Your task to perform on an android device: turn vacation reply on in the gmail app Image 0: 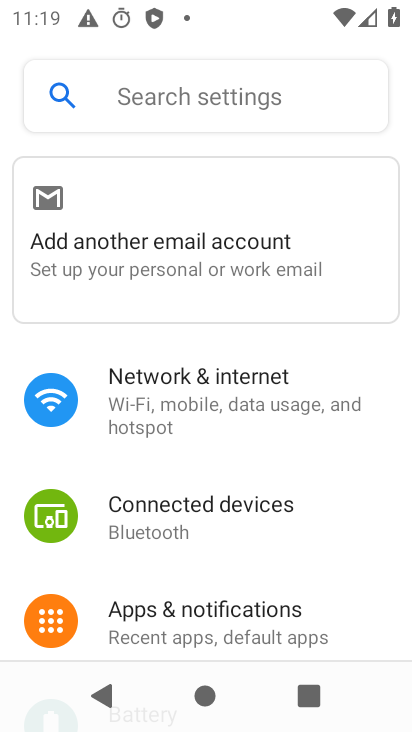
Step 0: press home button
Your task to perform on an android device: turn vacation reply on in the gmail app Image 1: 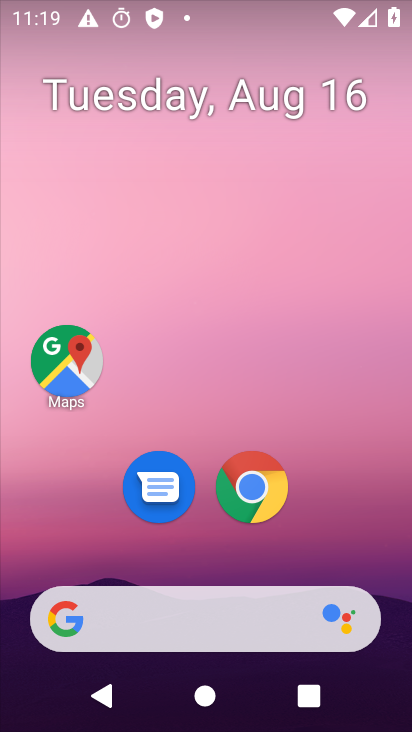
Step 1: drag from (381, 557) to (315, 104)
Your task to perform on an android device: turn vacation reply on in the gmail app Image 2: 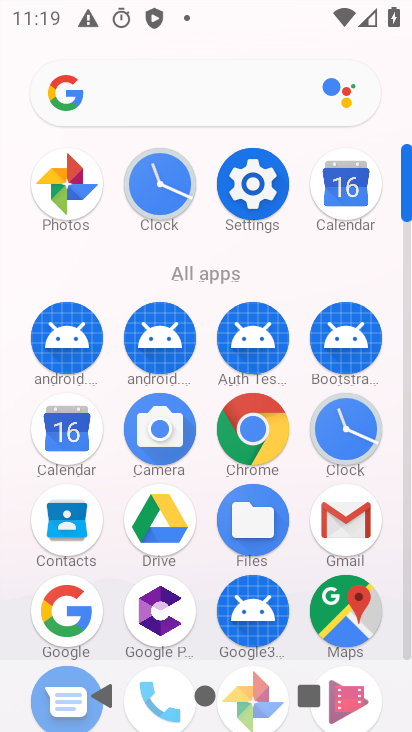
Step 2: click (328, 532)
Your task to perform on an android device: turn vacation reply on in the gmail app Image 3: 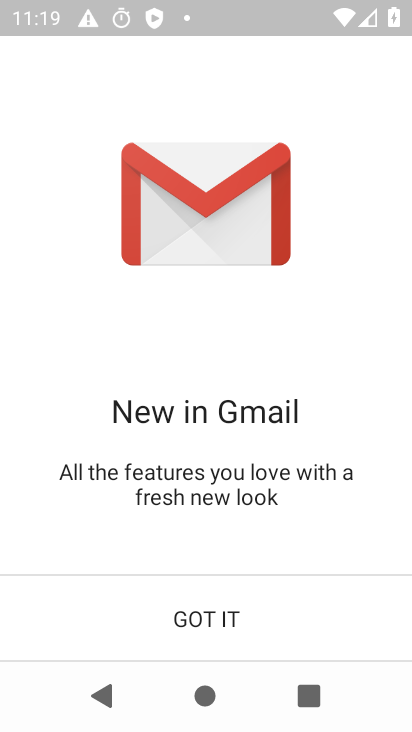
Step 3: click (180, 603)
Your task to perform on an android device: turn vacation reply on in the gmail app Image 4: 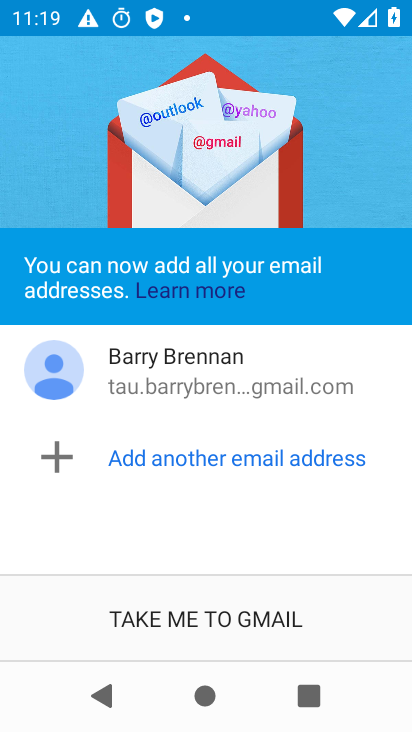
Step 4: click (163, 609)
Your task to perform on an android device: turn vacation reply on in the gmail app Image 5: 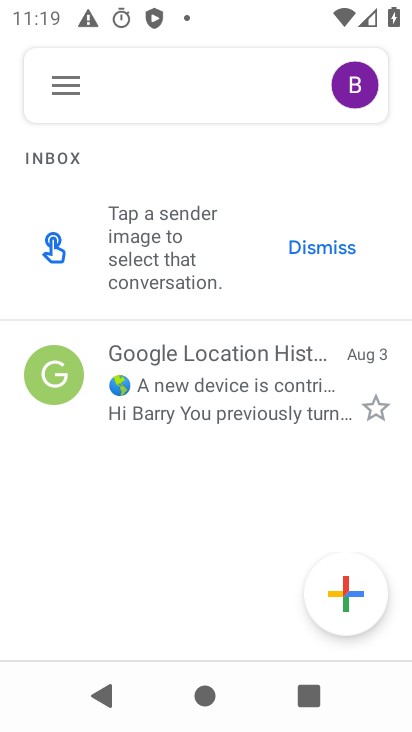
Step 5: click (69, 101)
Your task to perform on an android device: turn vacation reply on in the gmail app Image 6: 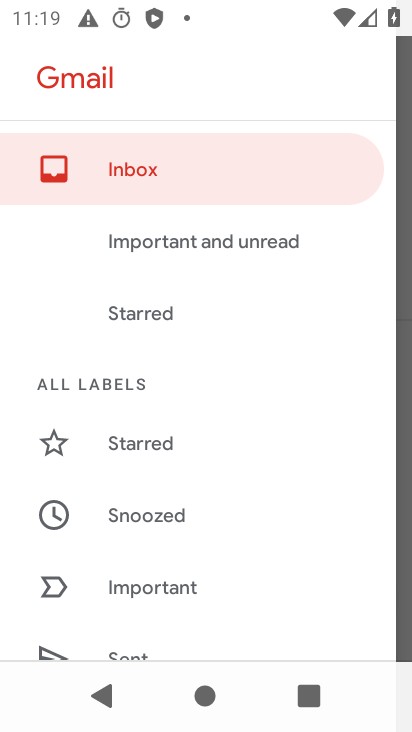
Step 6: drag from (255, 575) to (221, 255)
Your task to perform on an android device: turn vacation reply on in the gmail app Image 7: 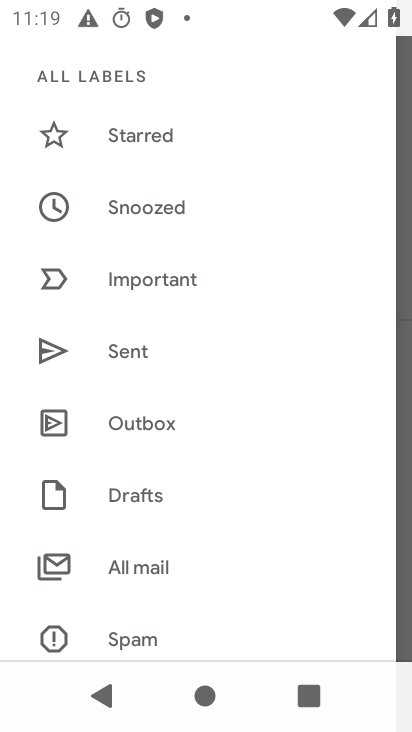
Step 7: drag from (238, 459) to (162, 75)
Your task to perform on an android device: turn vacation reply on in the gmail app Image 8: 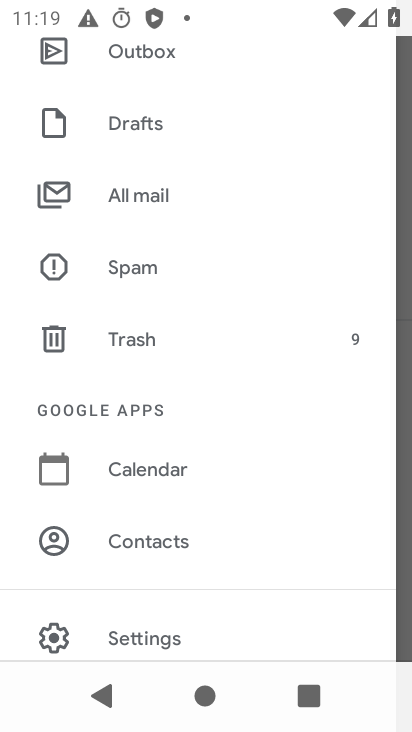
Step 8: click (179, 627)
Your task to perform on an android device: turn vacation reply on in the gmail app Image 9: 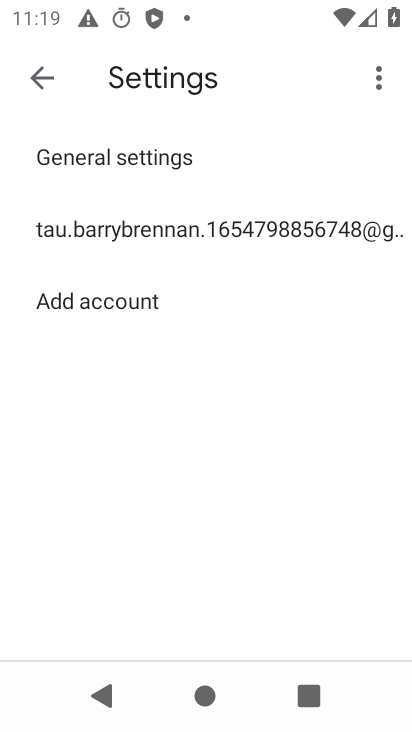
Step 9: click (147, 243)
Your task to perform on an android device: turn vacation reply on in the gmail app Image 10: 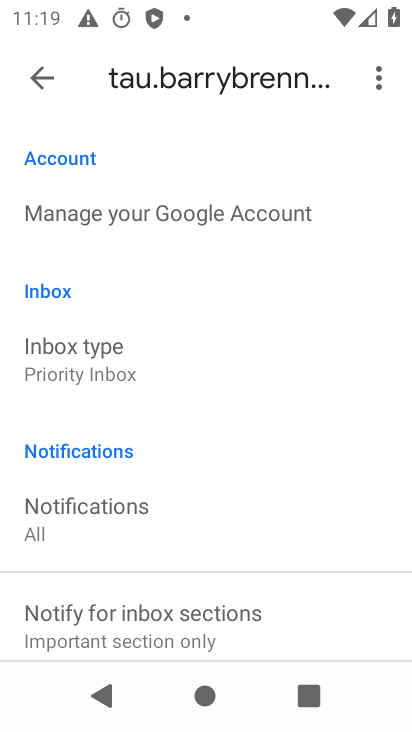
Step 10: task complete